Your task to perform on an android device: turn on data saver in the chrome app Image 0: 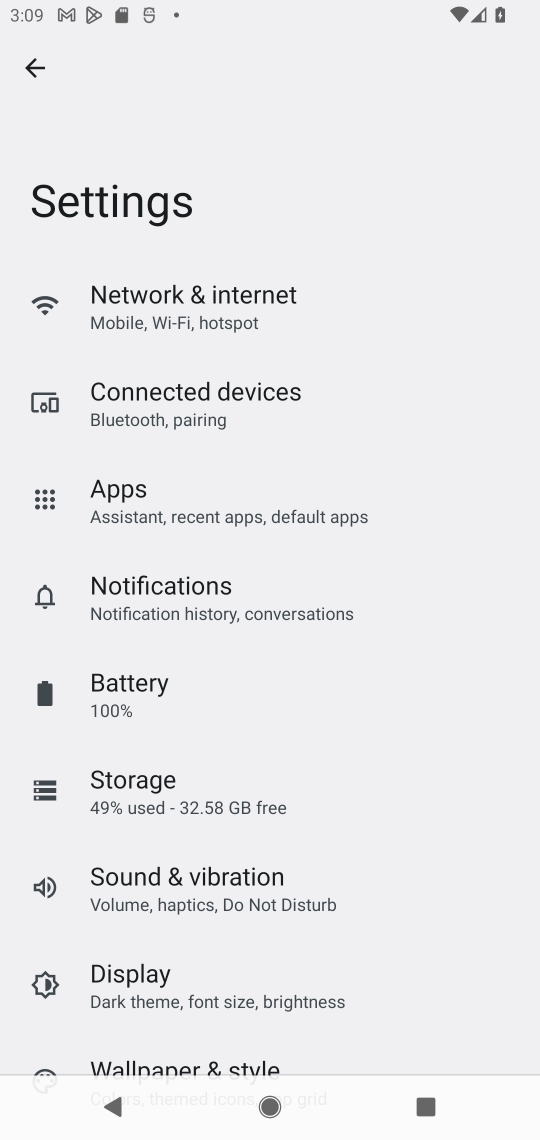
Step 0: drag from (319, 892) to (316, 466)
Your task to perform on an android device: turn on data saver in the chrome app Image 1: 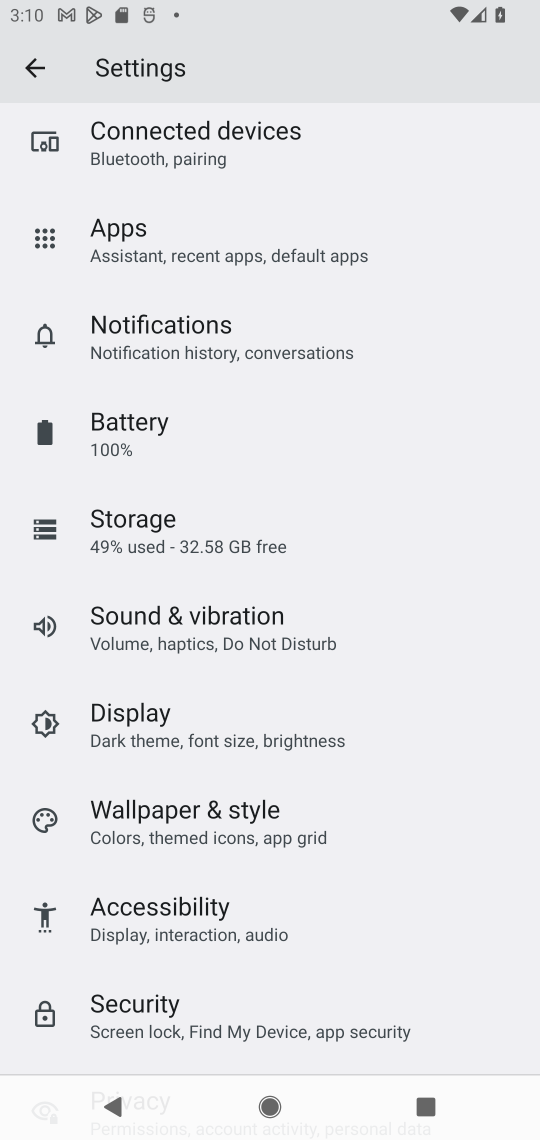
Step 1: press home button
Your task to perform on an android device: turn on data saver in the chrome app Image 2: 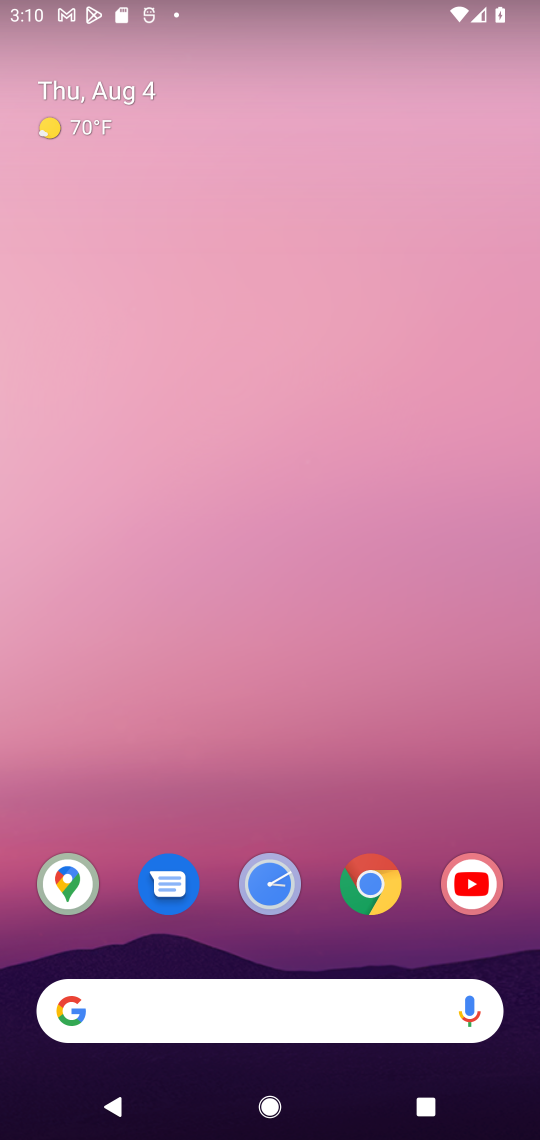
Step 2: drag from (329, 956) to (311, 242)
Your task to perform on an android device: turn on data saver in the chrome app Image 3: 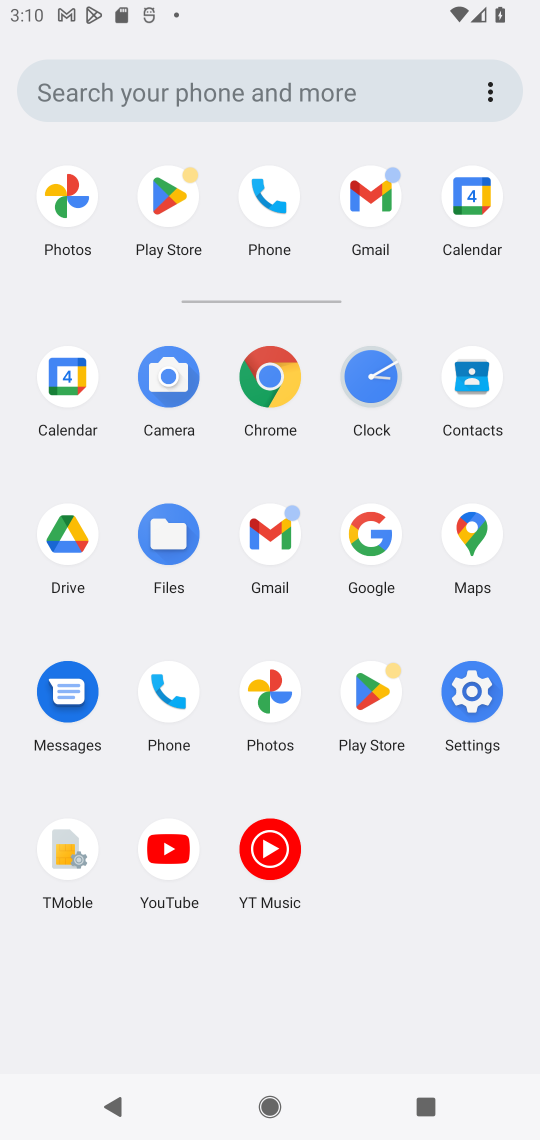
Step 3: click (247, 418)
Your task to perform on an android device: turn on data saver in the chrome app Image 4: 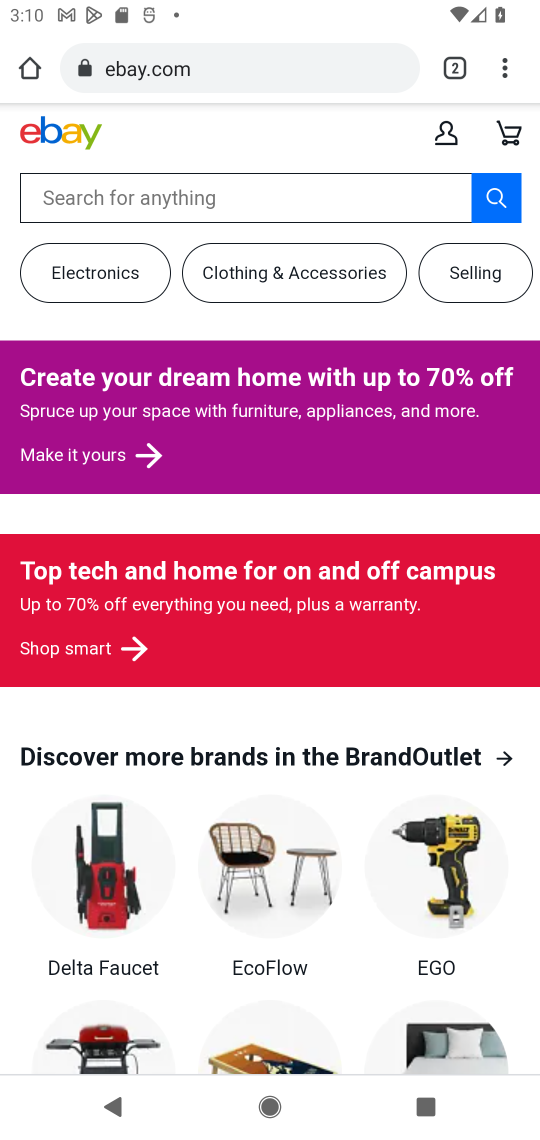
Step 4: click (506, 69)
Your task to perform on an android device: turn on data saver in the chrome app Image 5: 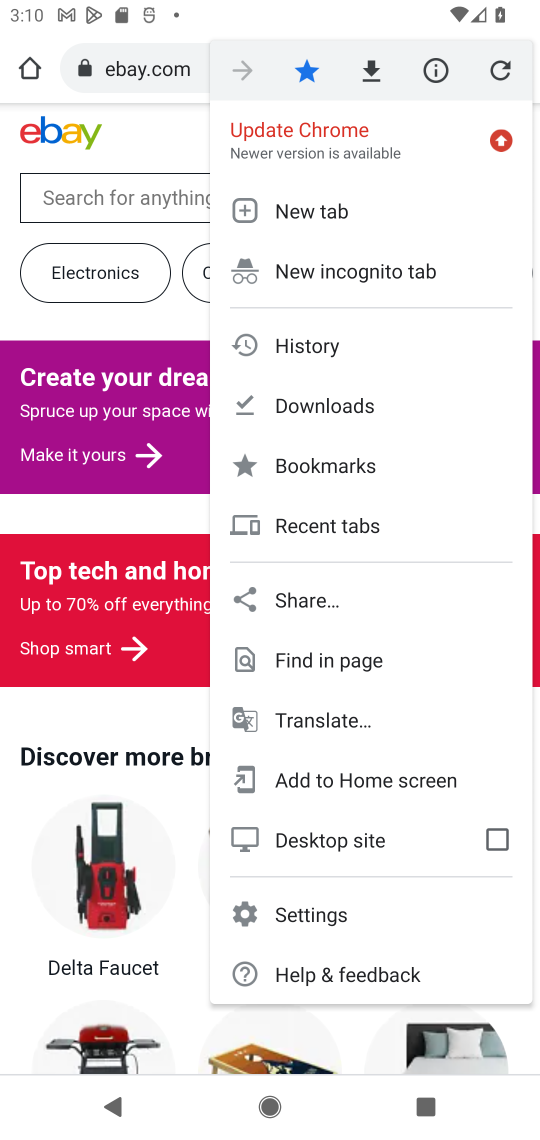
Step 5: click (357, 909)
Your task to perform on an android device: turn on data saver in the chrome app Image 6: 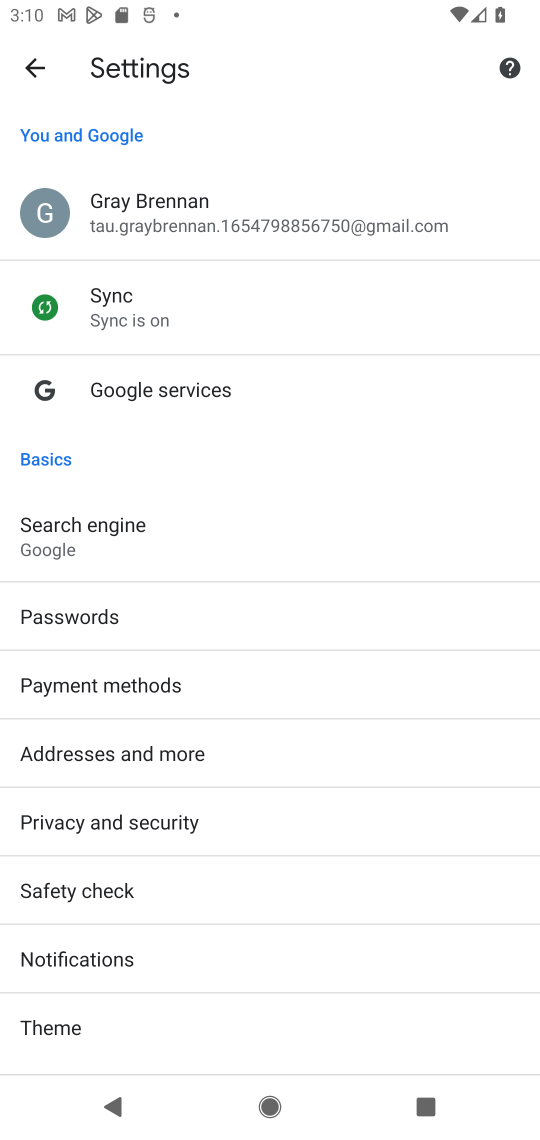
Step 6: drag from (291, 981) to (271, 497)
Your task to perform on an android device: turn on data saver in the chrome app Image 7: 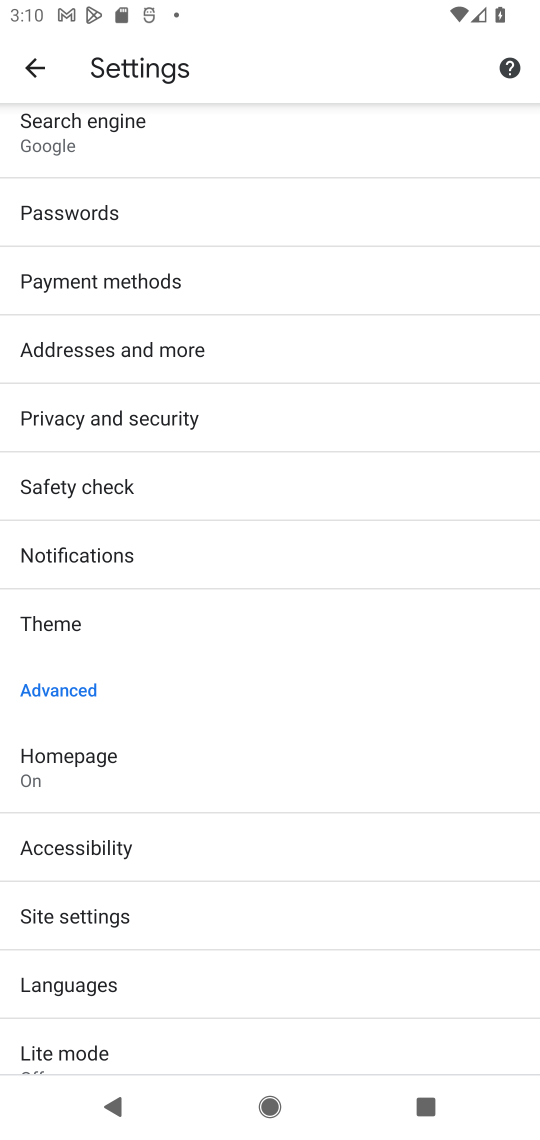
Step 7: click (238, 1055)
Your task to perform on an android device: turn on data saver in the chrome app Image 8: 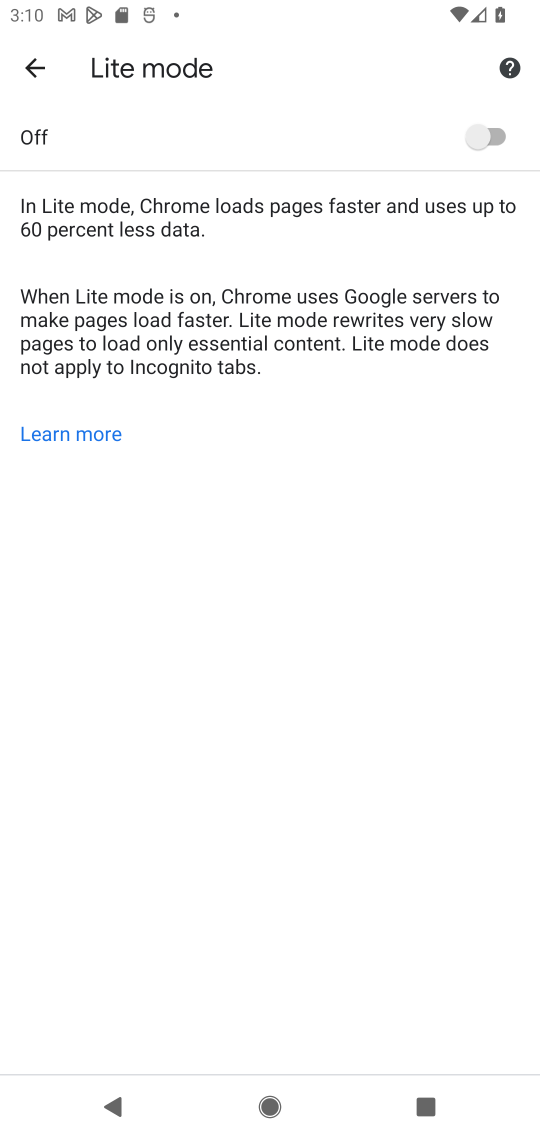
Step 8: click (457, 141)
Your task to perform on an android device: turn on data saver in the chrome app Image 9: 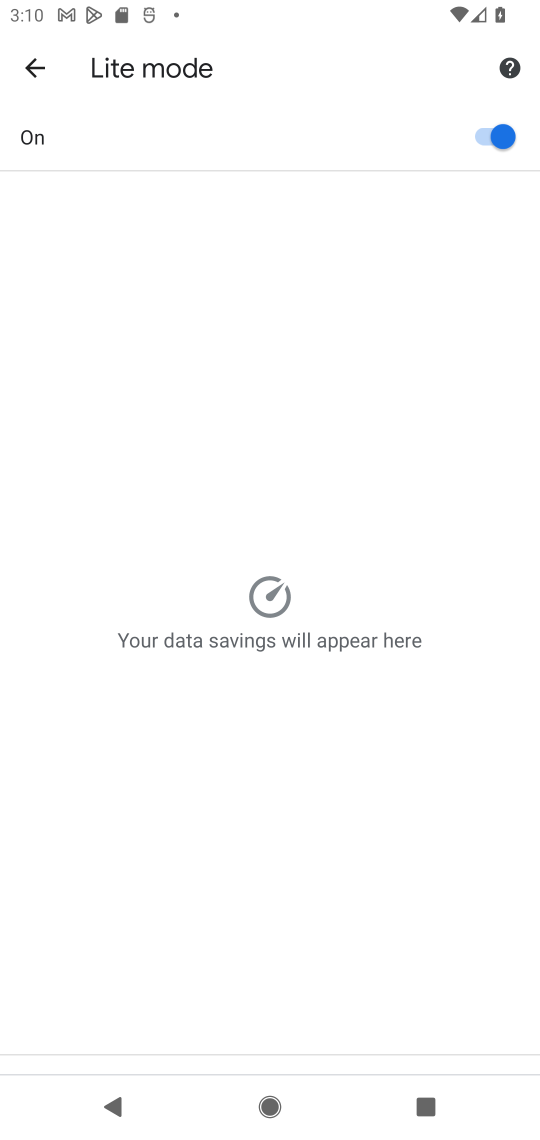
Step 9: task complete